Your task to perform on an android device: check out phone information Image 0: 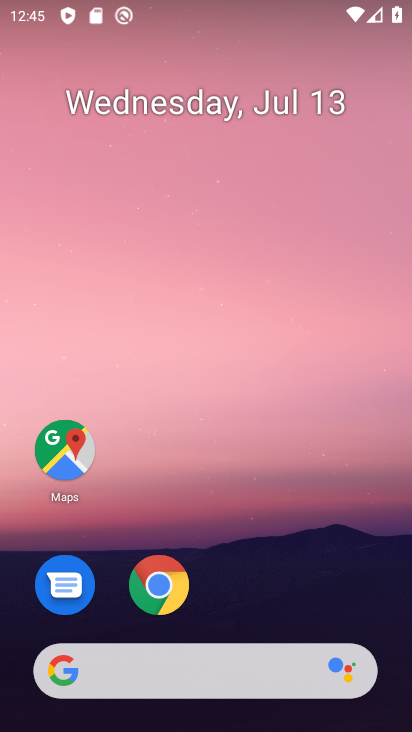
Step 0: drag from (246, 616) to (410, 438)
Your task to perform on an android device: check out phone information Image 1: 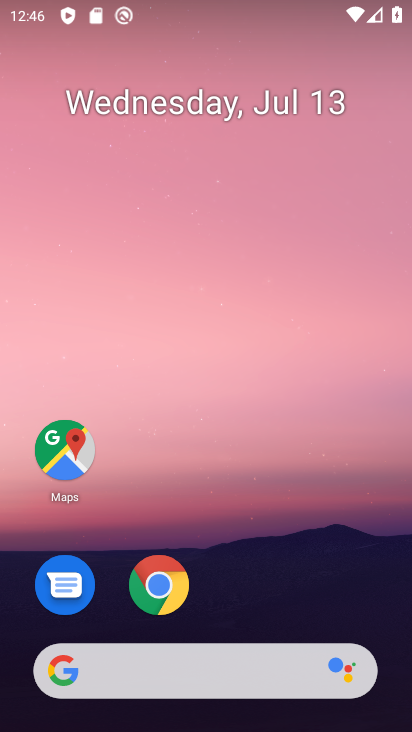
Step 1: drag from (201, 667) to (383, 110)
Your task to perform on an android device: check out phone information Image 2: 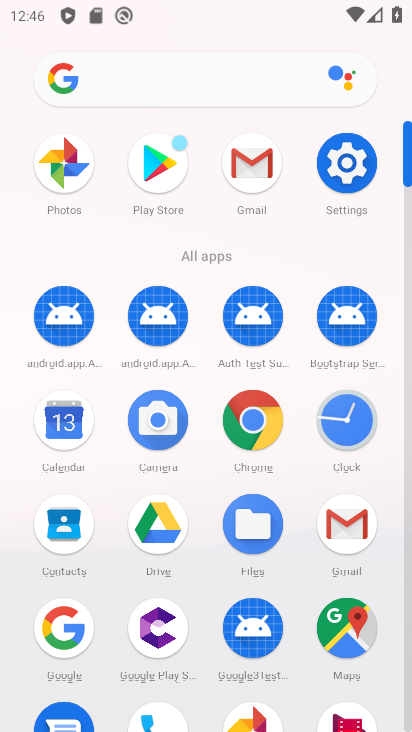
Step 2: click (349, 174)
Your task to perform on an android device: check out phone information Image 3: 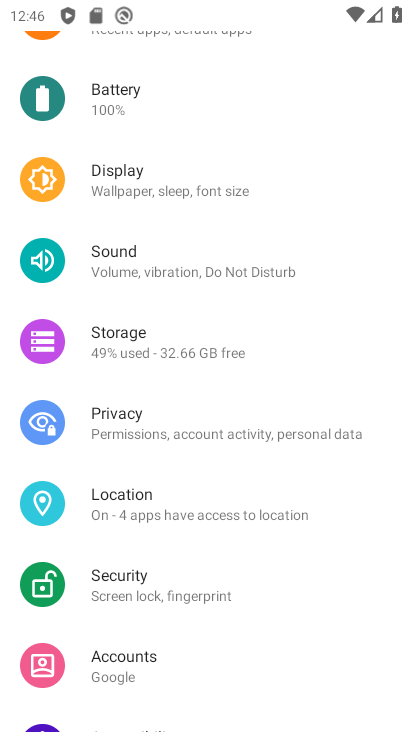
Step 3: drag from (201, 664) to (409, 32)
Your task to perform on an android device: check out phone information Image 4: 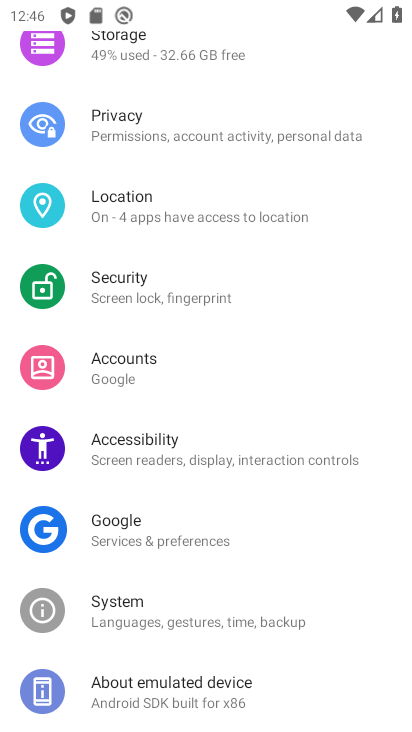
Step 4: click (150, 697)
Your task to perform on an android device: check out phone information Image 5: 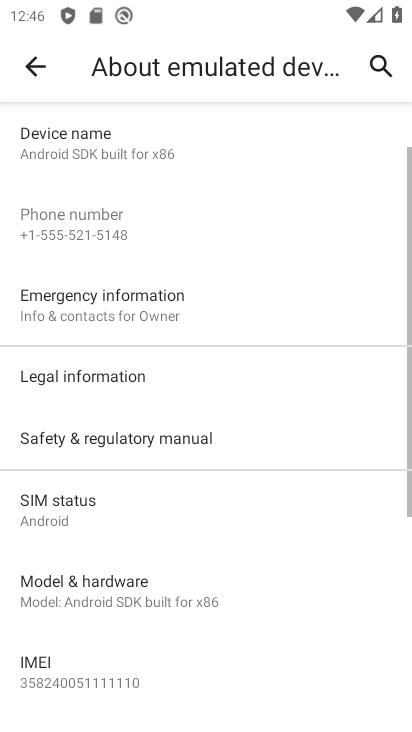
Step 5: task complete